Your task to perform on an android device: change timer sound Image 0: 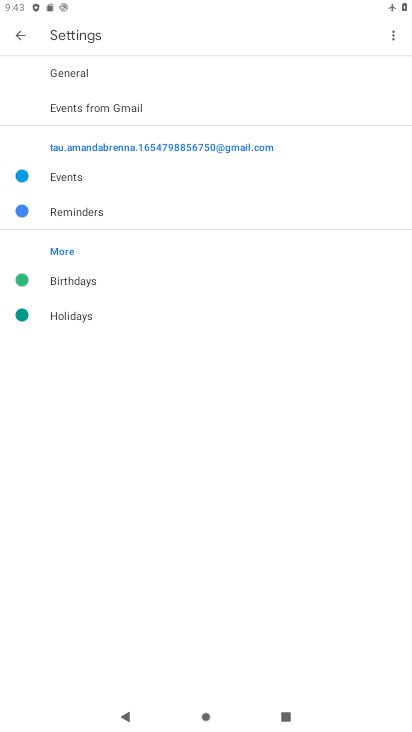
Step 0: press home button
Your task to perform on an android device: change timer sound Image 1: 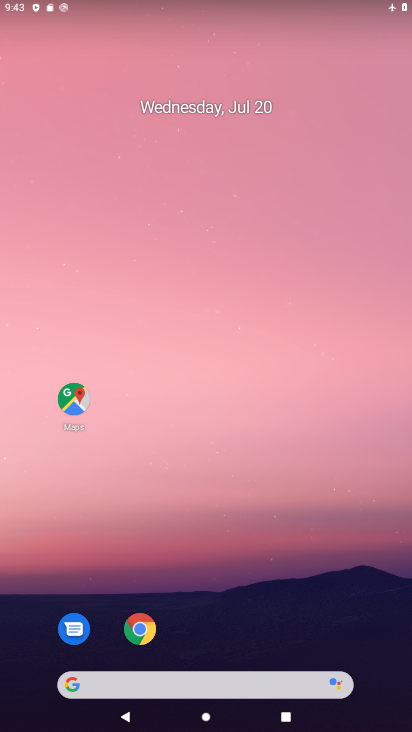
Step 1: drag from (318, 588) to (218, 4)
Your task to perform on an android device: change timer sound Image 2: 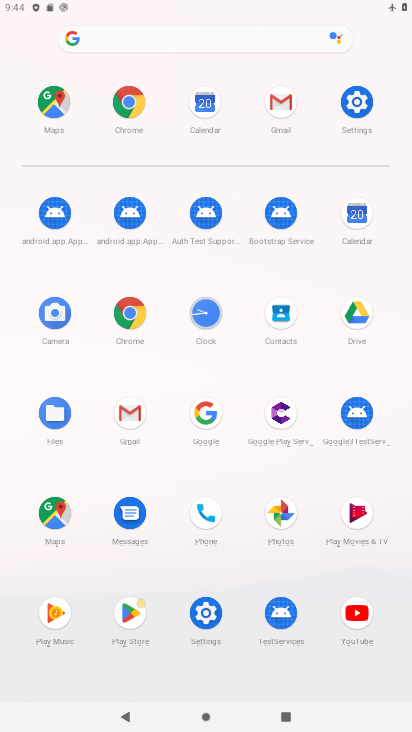
Step 2: click (207, 321)
Your task to perform on an android device: change timer sound Image 3: 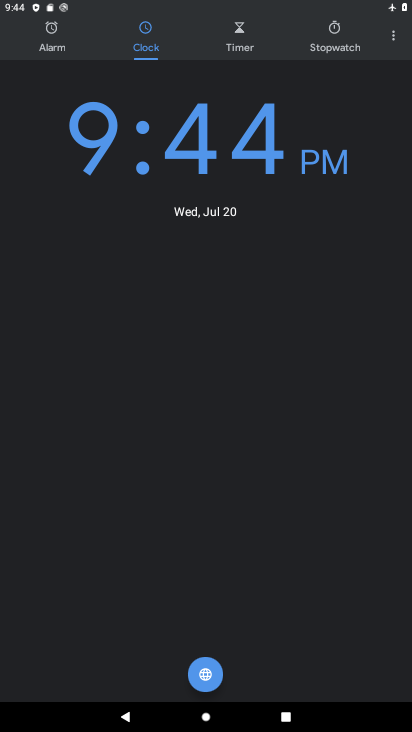
Step 3: click (382, 42)
Your task to perform on an android device: change timer sound Image 4: 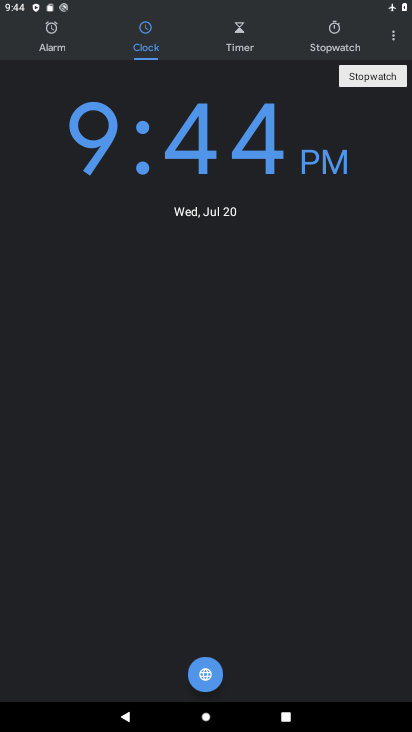
Step 4: click (390, 45)
Your task to perform on an android device: change timer sound Image 5: 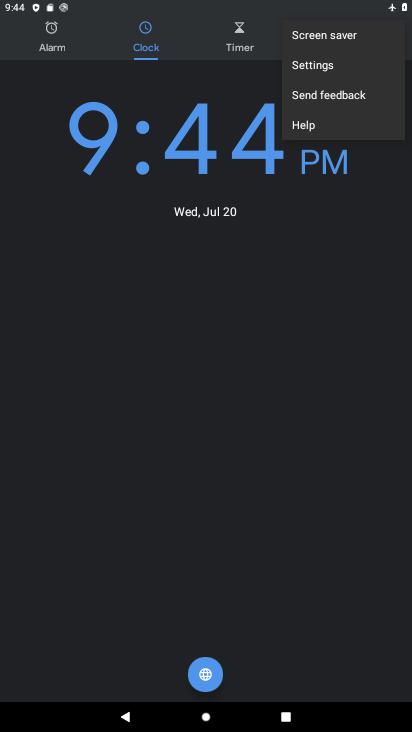
Step 5: click (296, 67)
Your task to perform on an android device: change timer sound Image 6: 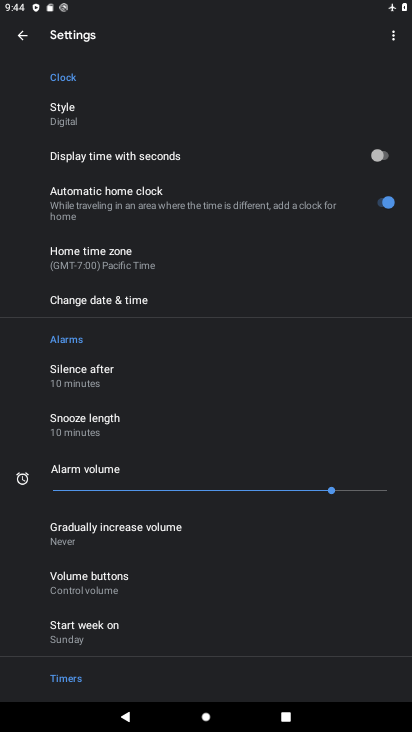
Step 6: drag from (208, 429) to (184, 121)
Your task to perform on an android device: change timer sound Image 7: 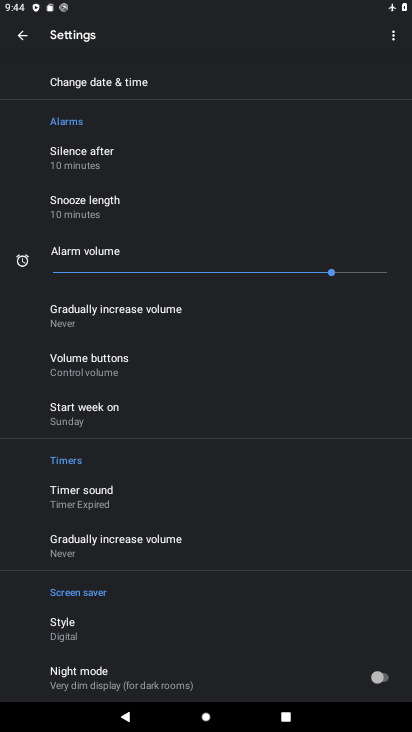
Step 7: click (104, 492)
Your task to perform on an android device: change timer sound Image 8: 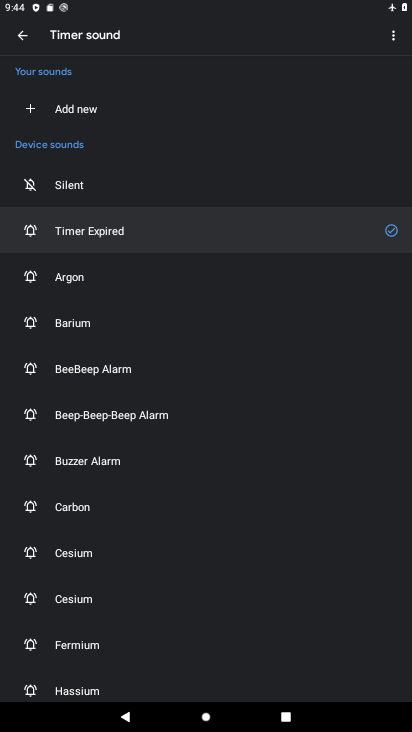
Step 8: click (61, 324)
Your task to perform on an android device: change timer sound Image 9: 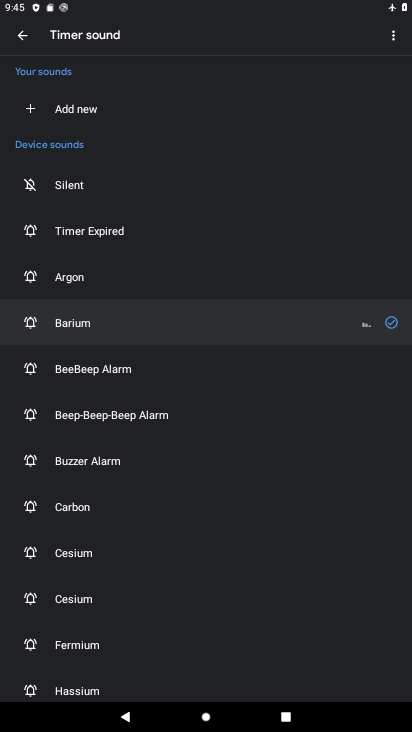
Step 9: task complete